Your task to perform on an android device: turn on priority inbox in the gmail app Image 0: 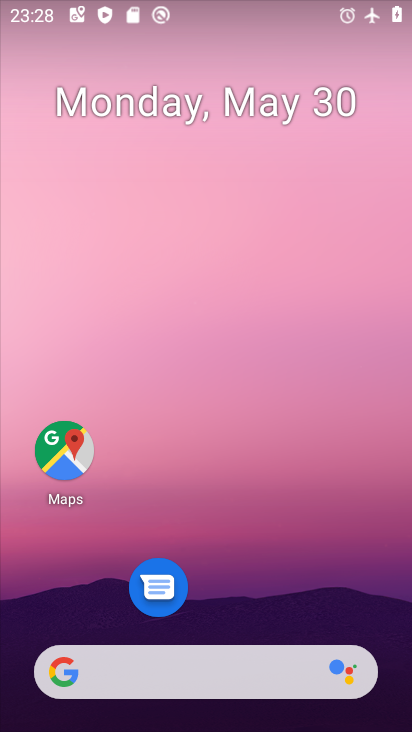
Step 0: drag from (246, 622) to (180, 36)
Your task to perform on an android device: turn on priority inbox in the gmail app Image 1: 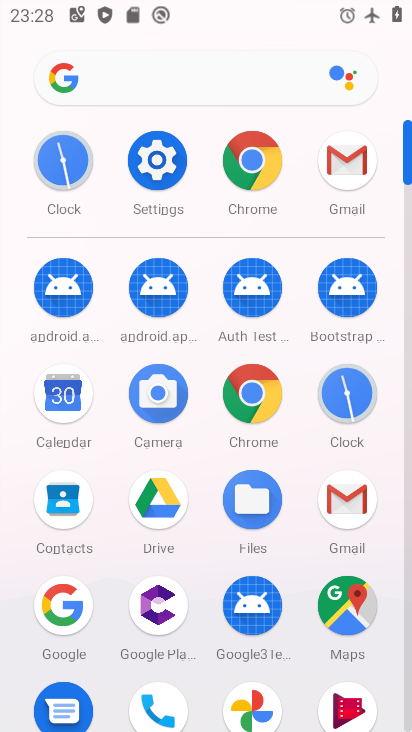
Step 1: click (348, 497)
Your task to perform on an android device: turn on priority inbox in the gmail app Image 2: 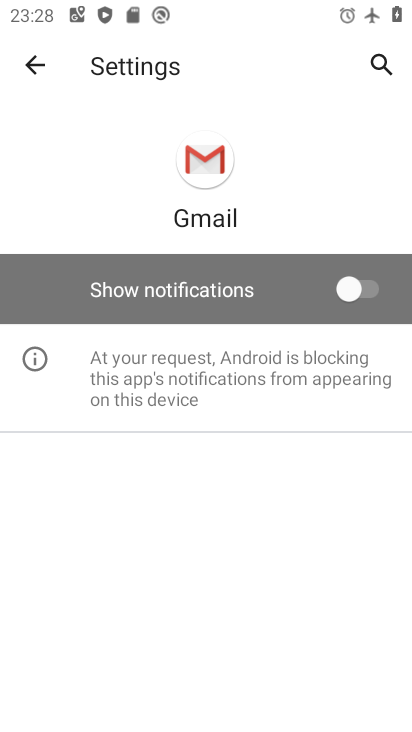
Step 2: click (33, 58)
Your task to perform on an android device: turn on priority inbox in the gmail app Image 3: 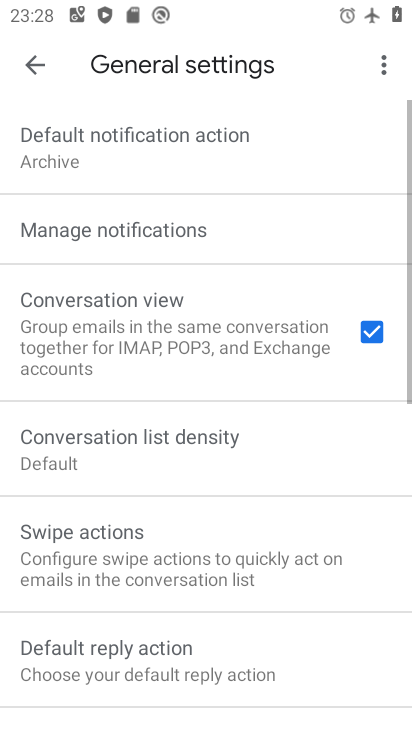
Step 3: click (33, 58)
Your task to perform on an android device: turn on priority inbox in the gmail app Image 4: 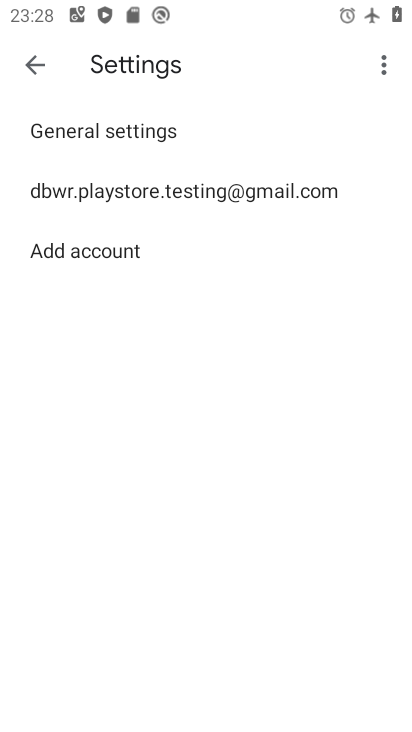
Step 4: click (111, 196)
Your task to perform on an android device: turn on priority inbox in the gmail app Image 5: 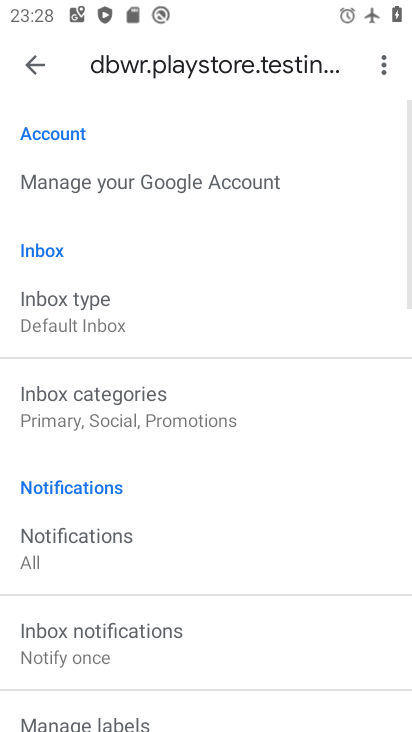
Step 5: click (86, 323)
Your task to perform on an android device: turn on priority inbox in the gmail app Image 6: 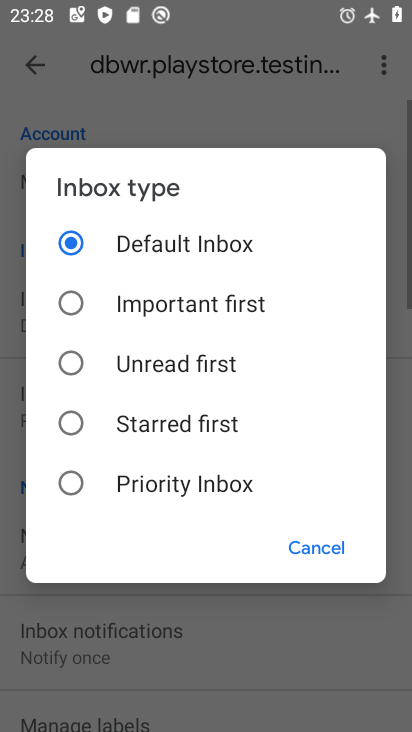
Step 6: click (167, 481)
Your task to perform on an android device: turn on priority inbox in the gmail app Image 7: 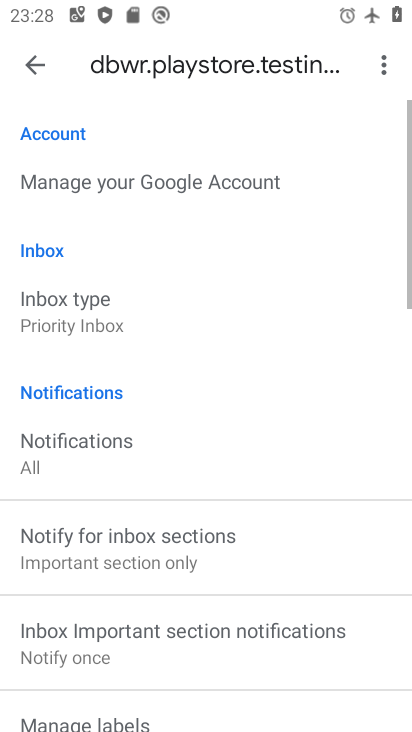
Step 7: task complete